Your task to perform on an android device: Is it going to rain today? Image 0: 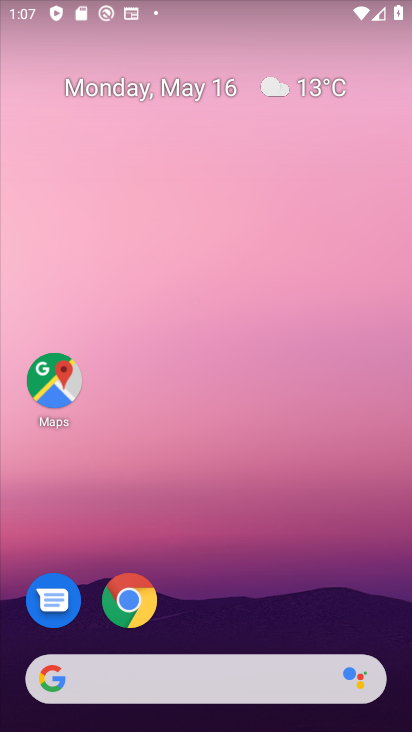
Step 0: click (136, 601)
Your task to perform on an android device: Is it going to rain today? Image 1: 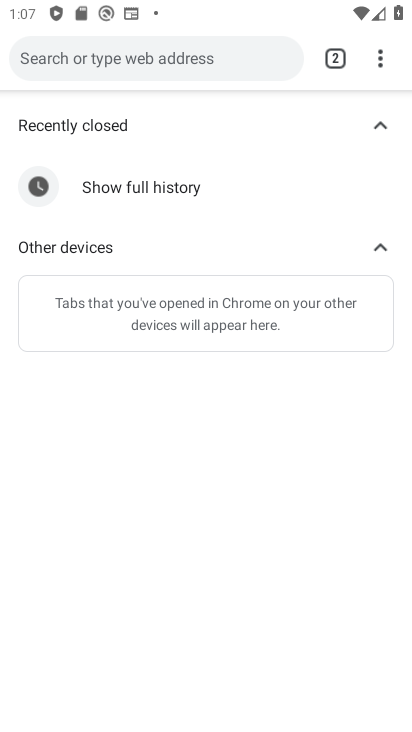
Step 1: click (258, 54)
Your task to perform on an android device: Is it going to rain today? Image 2: 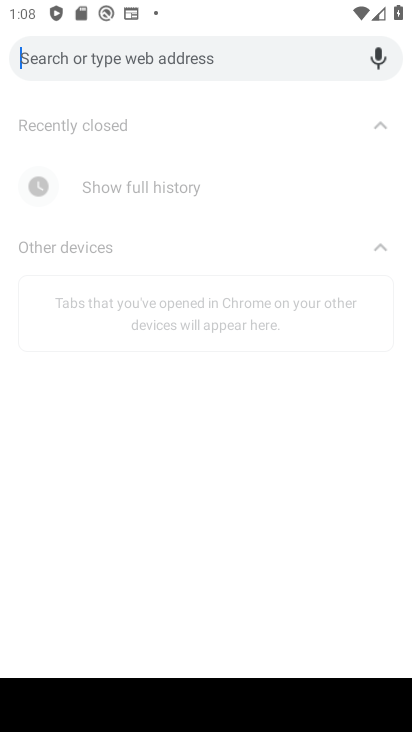
Step 2: type "is it going to rain today?"
Your task to perform on an android device: Is it going to rain today? Image 3: 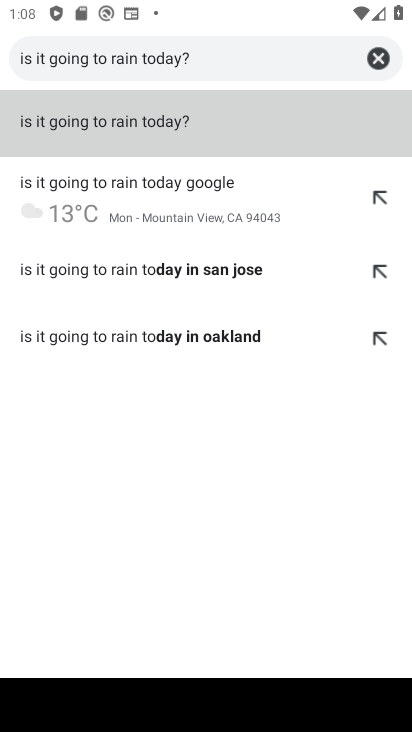
Step 3: click (160, 117)
Your task to perform on an android device: Is it going to rain today? Image 4: 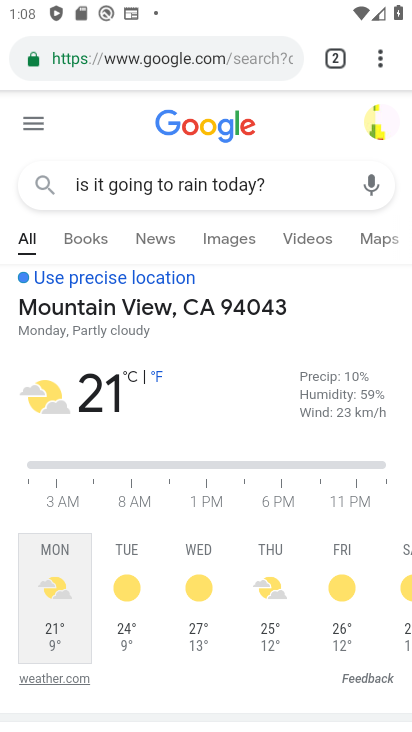
Step 4: task complete